Your task to perform on an android device: Show me recent news Image 0: 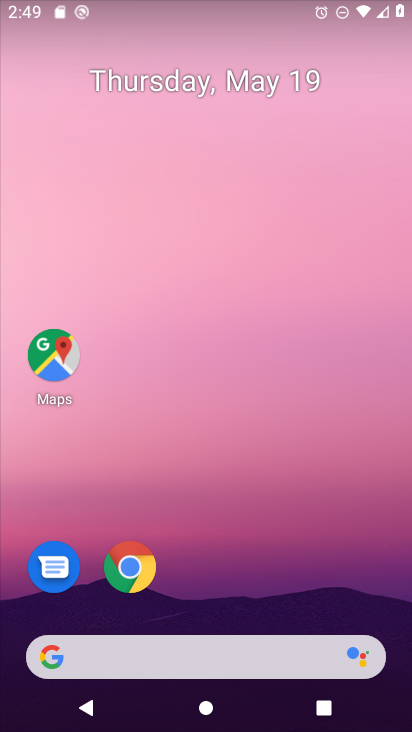
Step 0: drag from (236, 553) to (262, 72)
Your task to perform on an android device: Show me recent news Image 1: 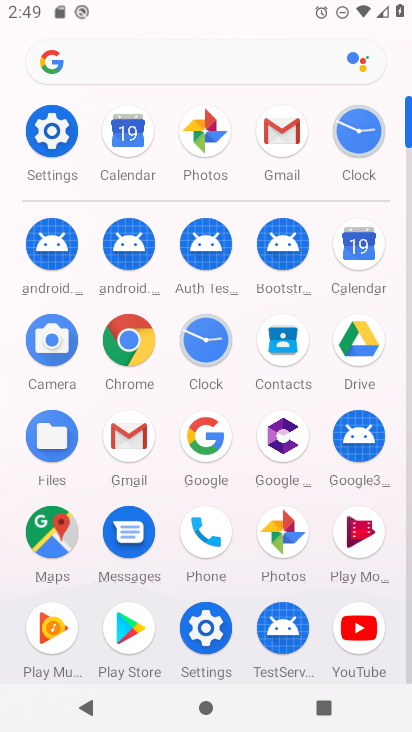
Step 1: press home button
Your task to perform on an android device: Show me recent news Image 2: 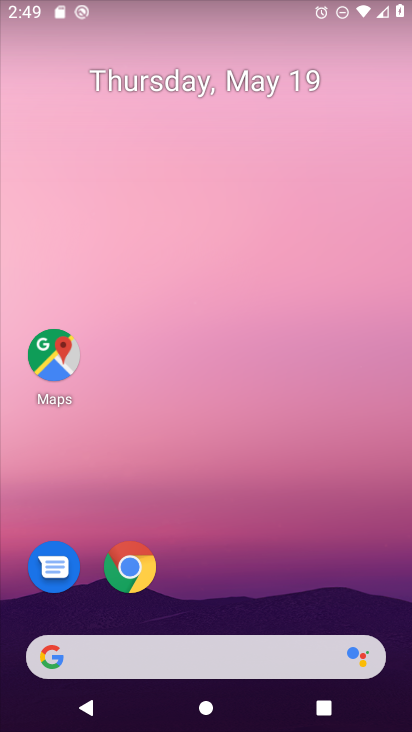
Step 2: click (194, 660)
Your task to perform on an android device: Show me recent news Image 3: 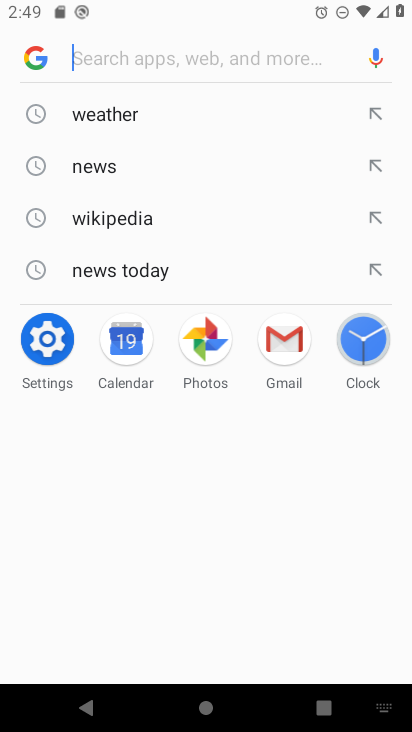
Step 3: click (30, 161)
Your task to perform on an android device: Show me recent news Image 4: 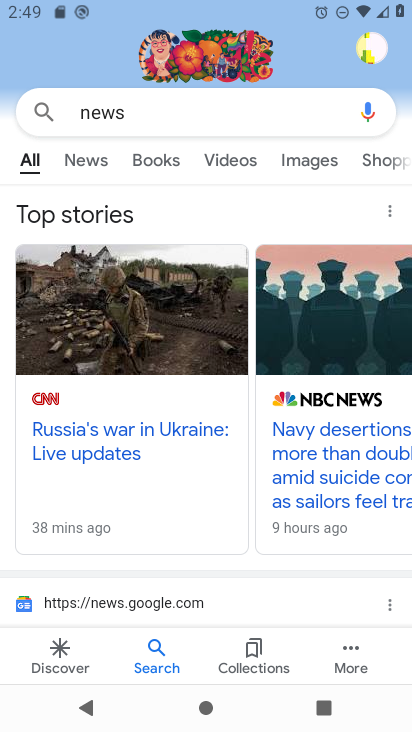
Step 4: click (92, 149)
Your task to perform on an android device: Show me recent news Image 5: 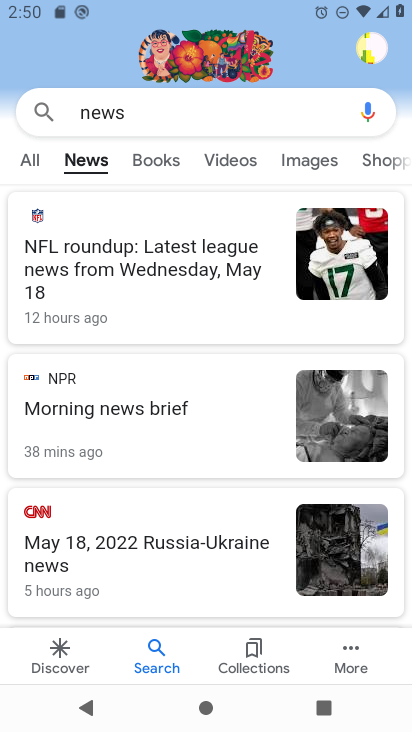
Step 5: task complete